Your task to perform on an android device: Add bose soundlink mini to the cart on newegg Image 0: 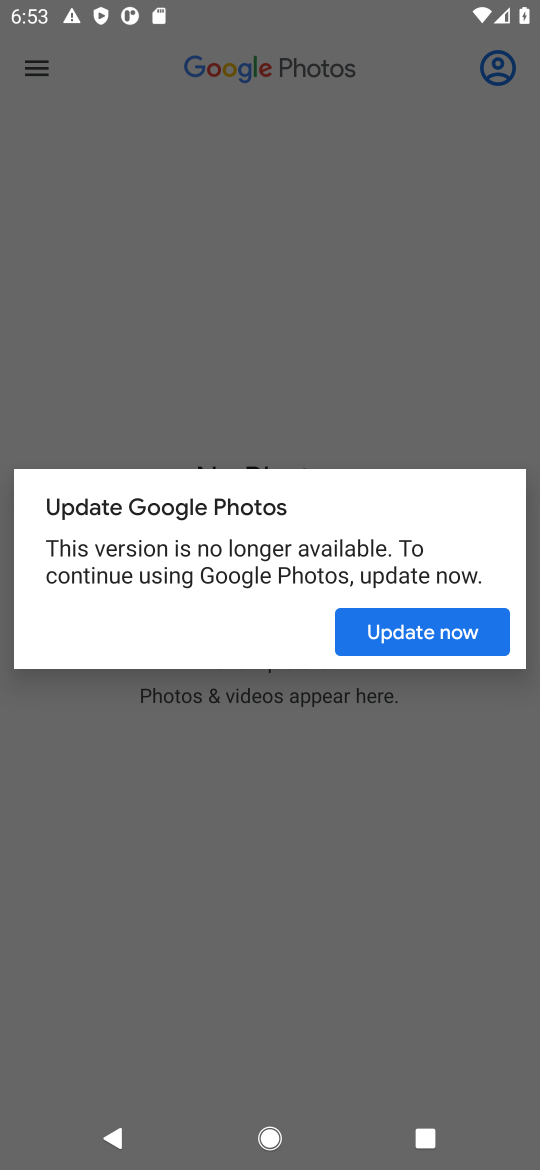
Step 0: press home button
Your task to perform on an android device: Add bose soundlink mini to the cart on newegg Image 1: 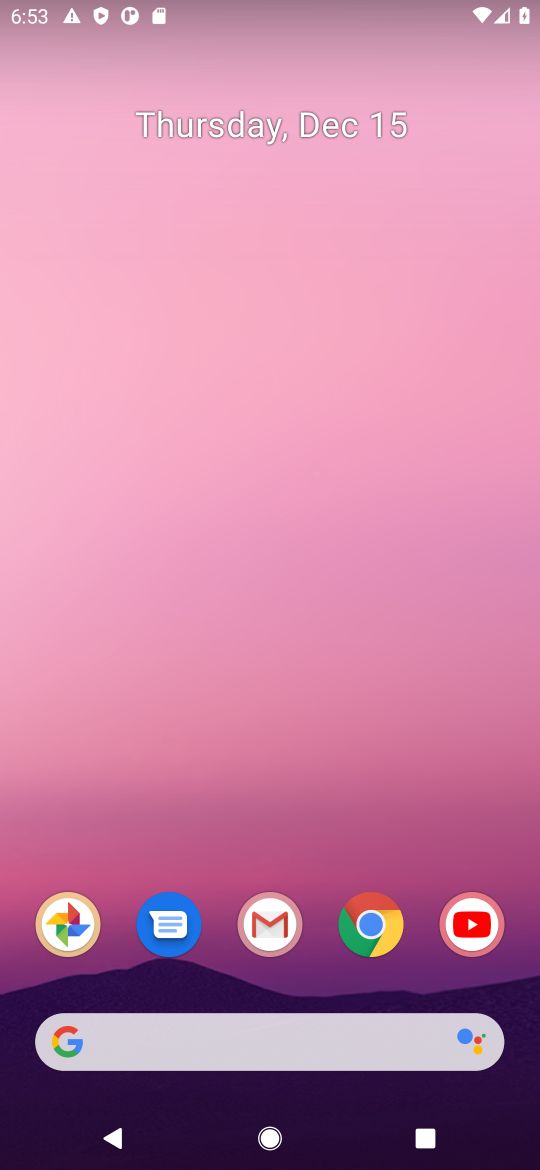
Step 1: click (359, 940)
Your task to perform on an android device: Add bose soundlink mini to the cart on newegg Image 2: 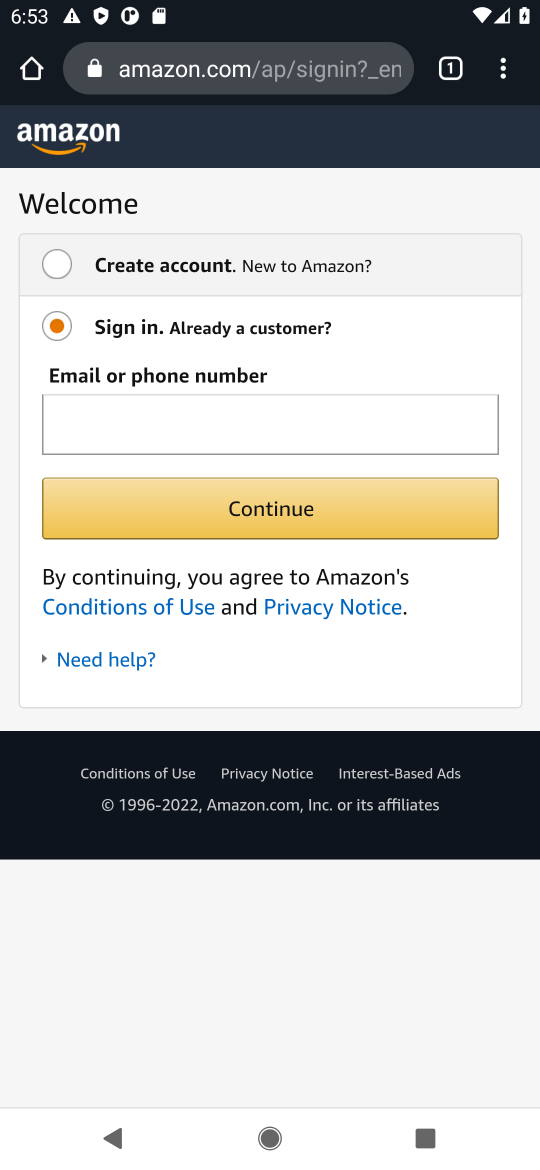
Step 2: click (233, 82)
Your task to perform on an android device: Add bose soundlink mini to the cart on newegg Image 3: 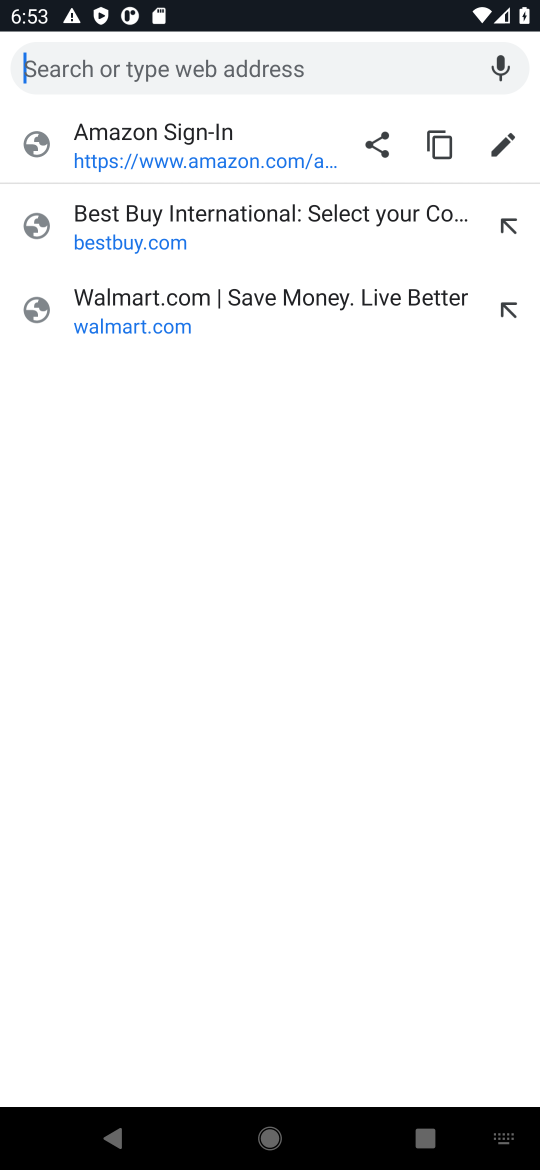
Step 3: type "newegg"
Your task to perform on an android device: Add bose soundlink mini to the cart on newegg Image 4: 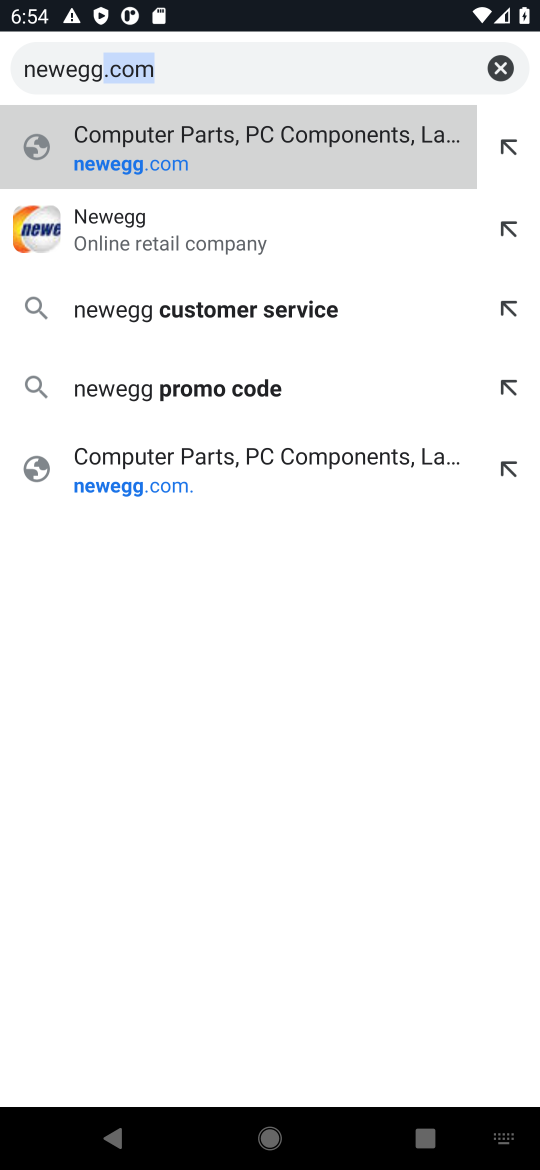
Step 4: click (47, 227)
Your task to perform on an android device: Add bose soundlink mini to the cart on newegg Image 5: 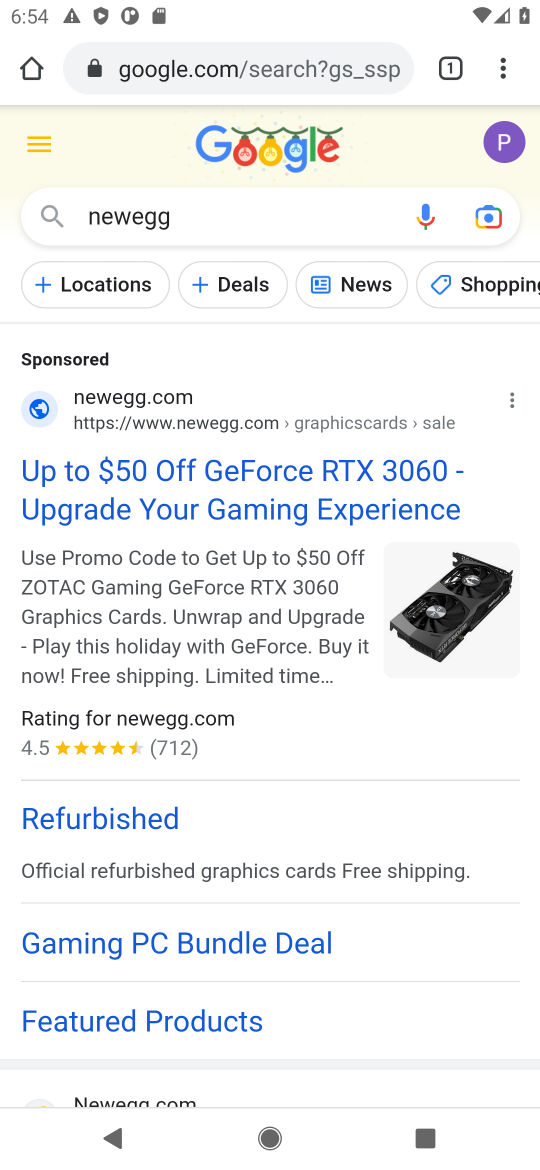
Step 5: click (120, 500)
Your task to perform on an android device: Add bose soundlink mini to the cart on newegg Image 6: 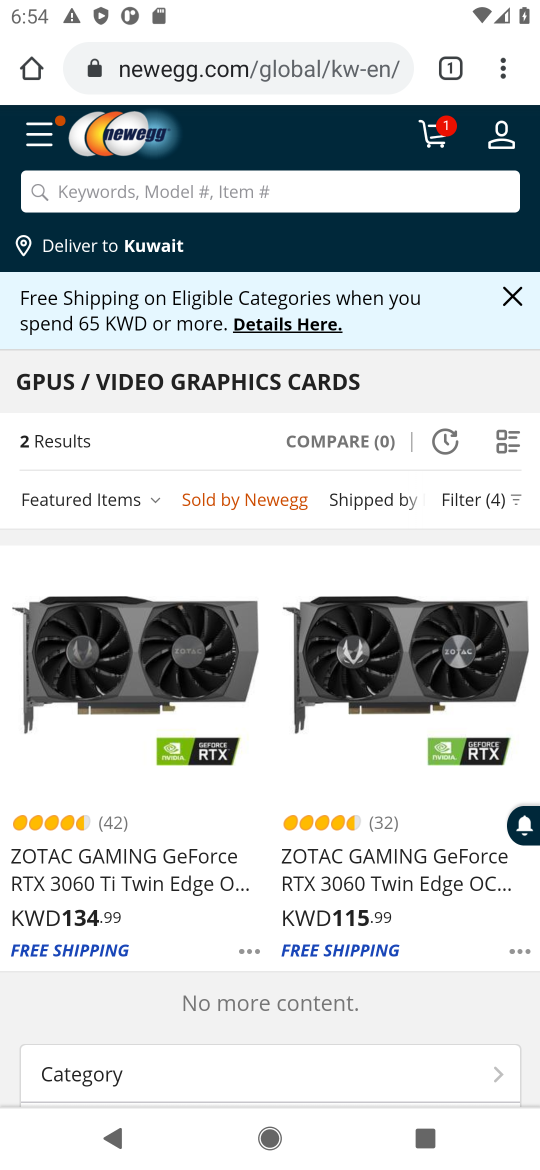
Step 6: click (223, 190)
Your task to perform on an android device: Add bose soundlink mini to the cart on newegg Image 7: 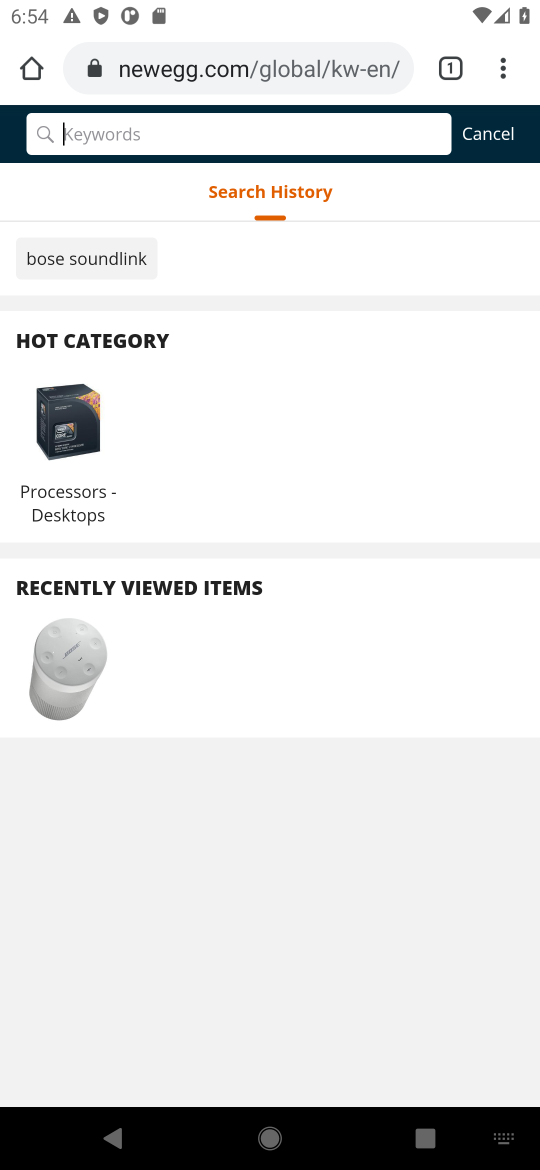
Step 7: type "bose soundlink mini"
Your task to perform on an android device: Add bose soundlink mini to the cart on newegg Image 8: 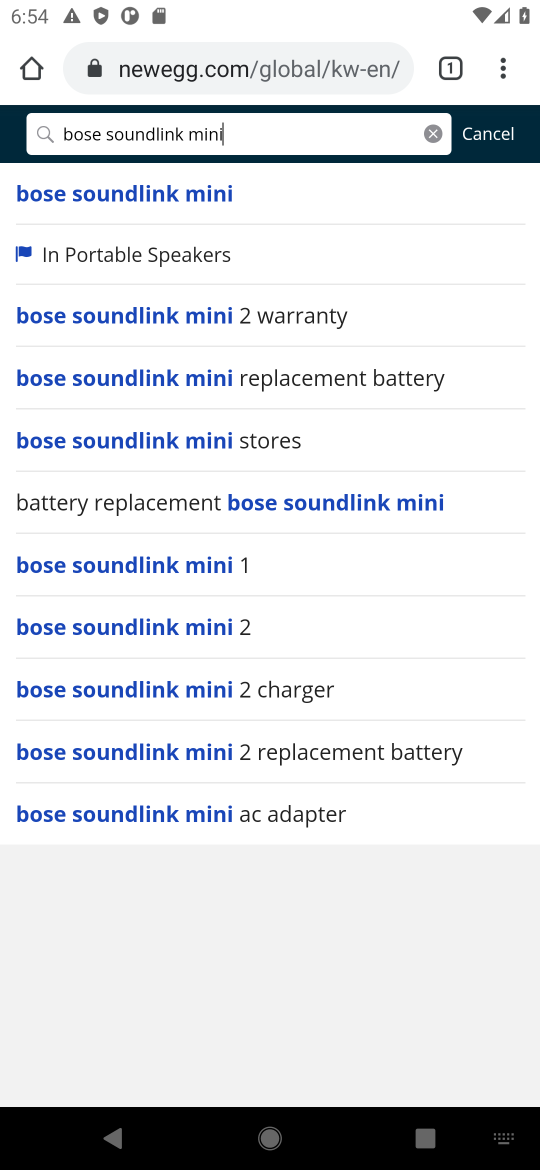
Step 8: click (165, 191)
Your task to perform on an android device: Add bose soundlink mini to the cart on newegg Image 9: 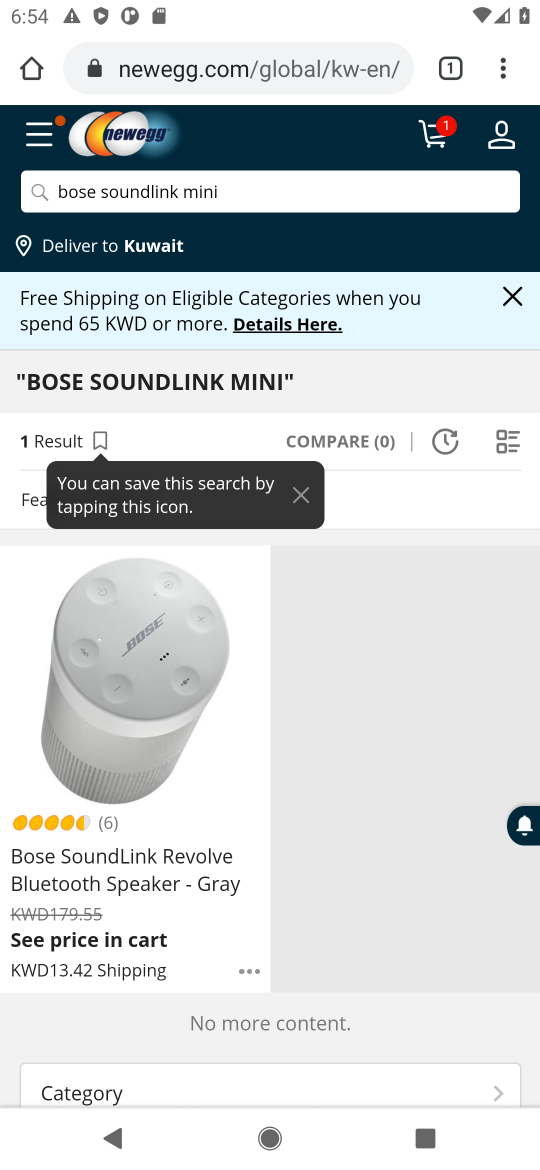
Step 9: click (62, 858)
Your task to perform on an android device: Add bose soundlink mini to the cart on newegg Image 10: 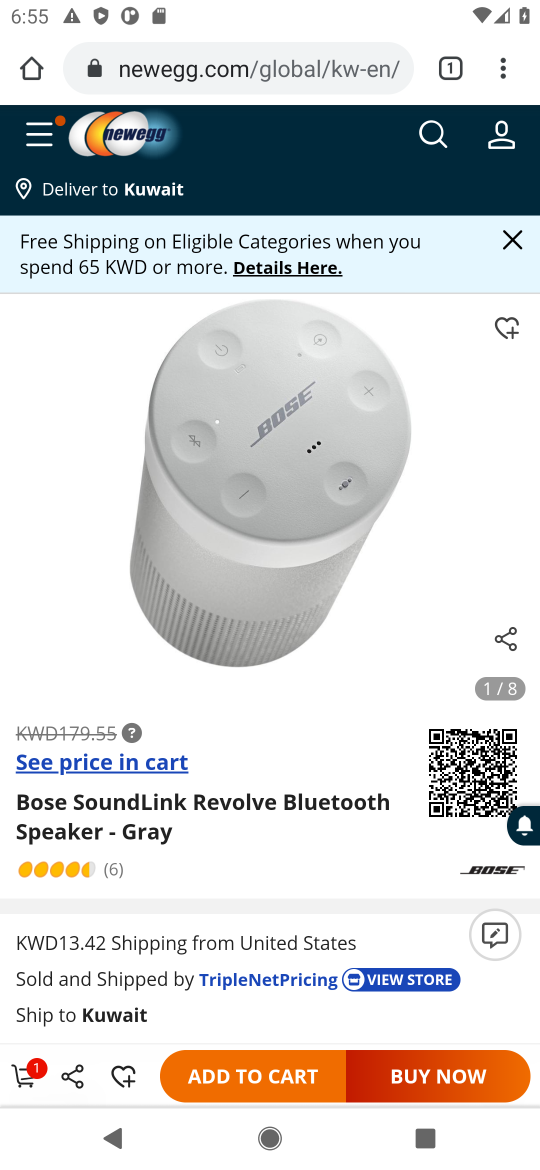
Step 10: click (282, 1078)
Your task to perform on an android device: Add bose soundlink mini to the cart on newegg Image 11: 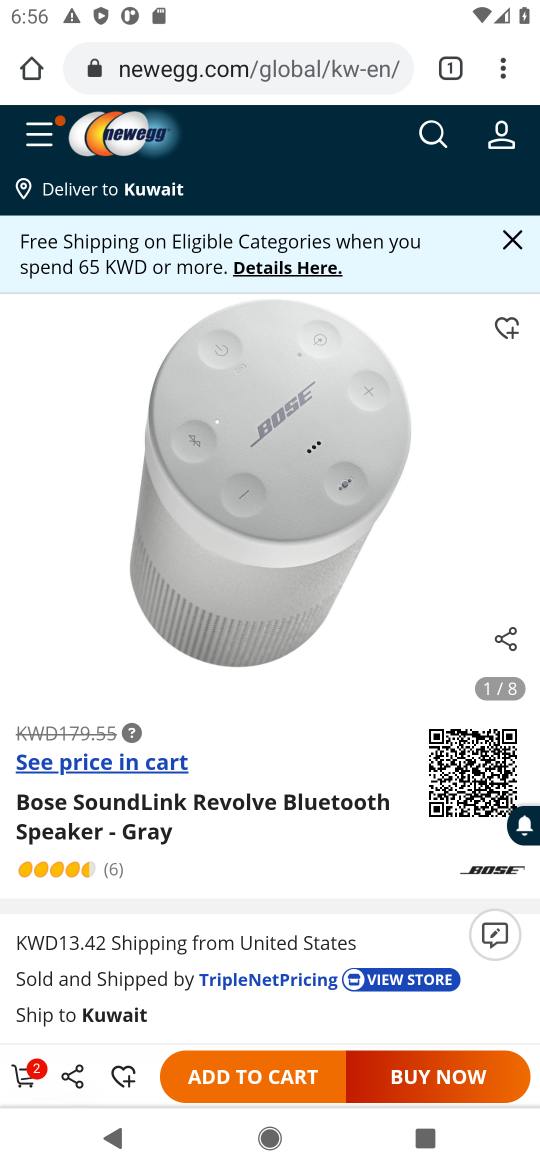
Step 11: task complete